Your task to perform on an android device: toggle wifi Image 0: 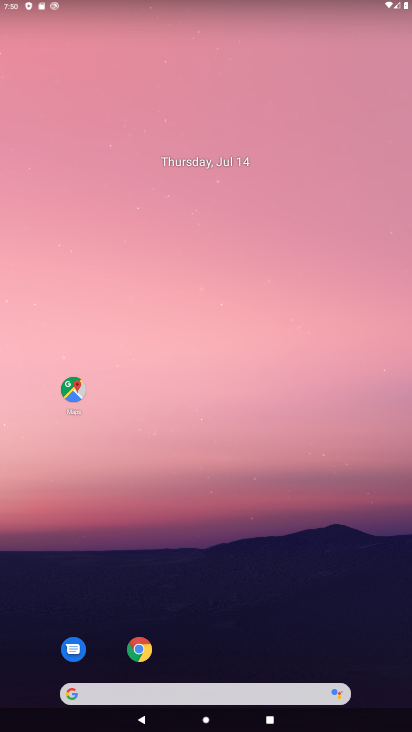
Step 0: drag from (251, 600) to (171, 20)
Your task to perform on an android device: toggle wifi Image 1: 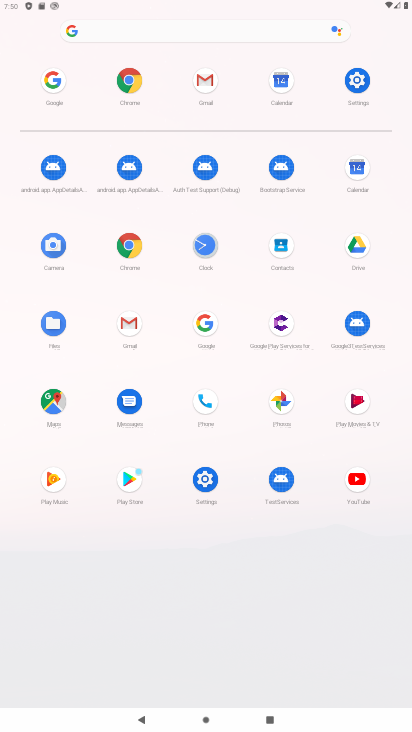
Step 1: click (354, 68)
Your task to perform on an android device: toggle wifi Image 2: 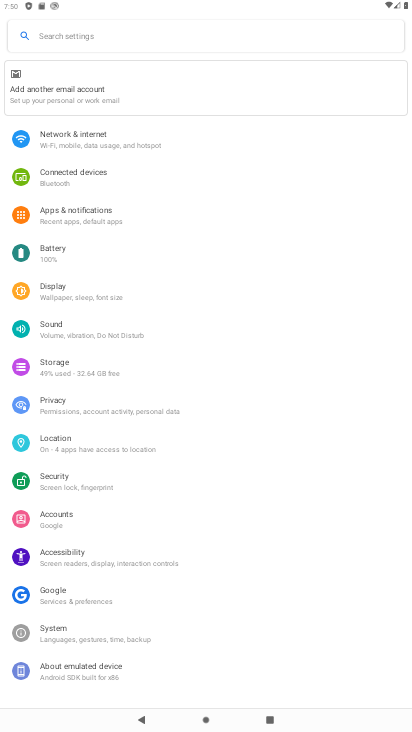
Step 2: click (95, 151)
Your task to perform on an android device: toggle wifi Image 3: 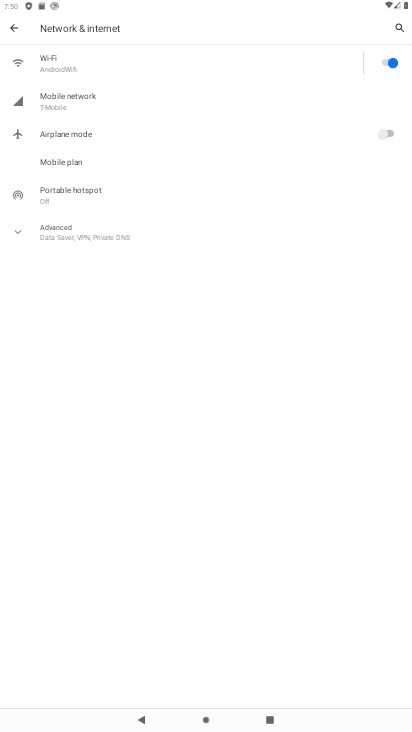
Step 3: click (394, 63)
Your task to perform on an android device: toggle wifi Image 4: 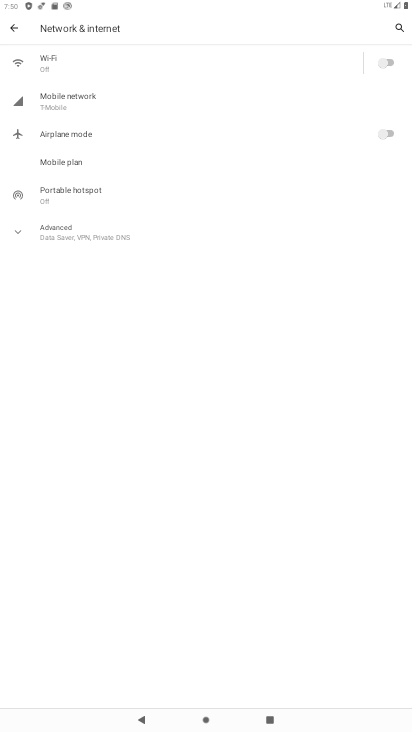
Step 4: task complete